Your task to perform on an android device: Add razer blade to the cart on amazon.com, then select checkout. Image 0: 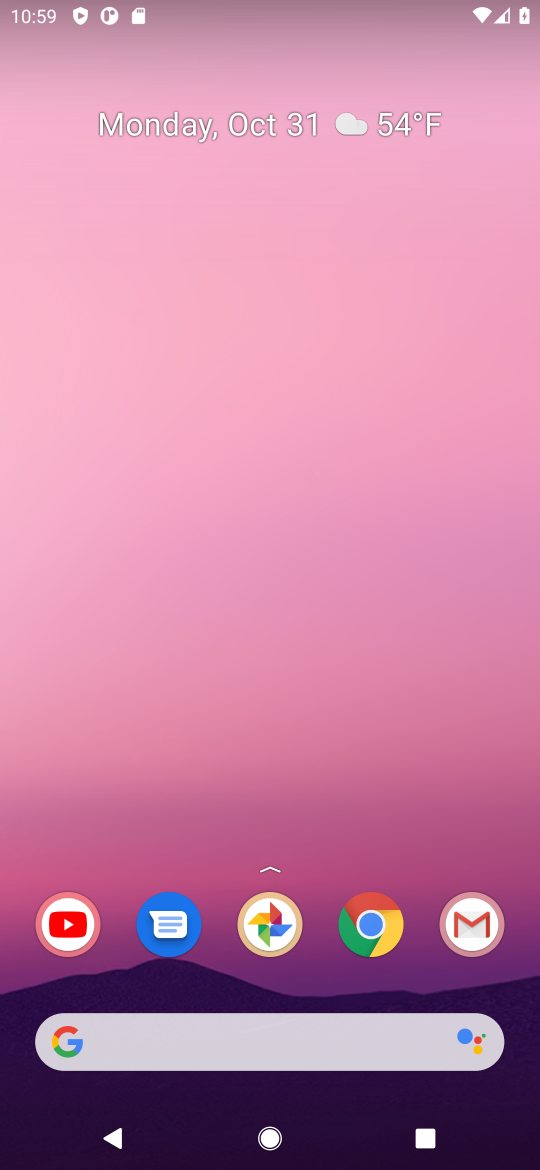
Step 0: press home button
Your task to perform on an android device: Add razer blade to the cart on amazon.com, then select checkout. Image 1: 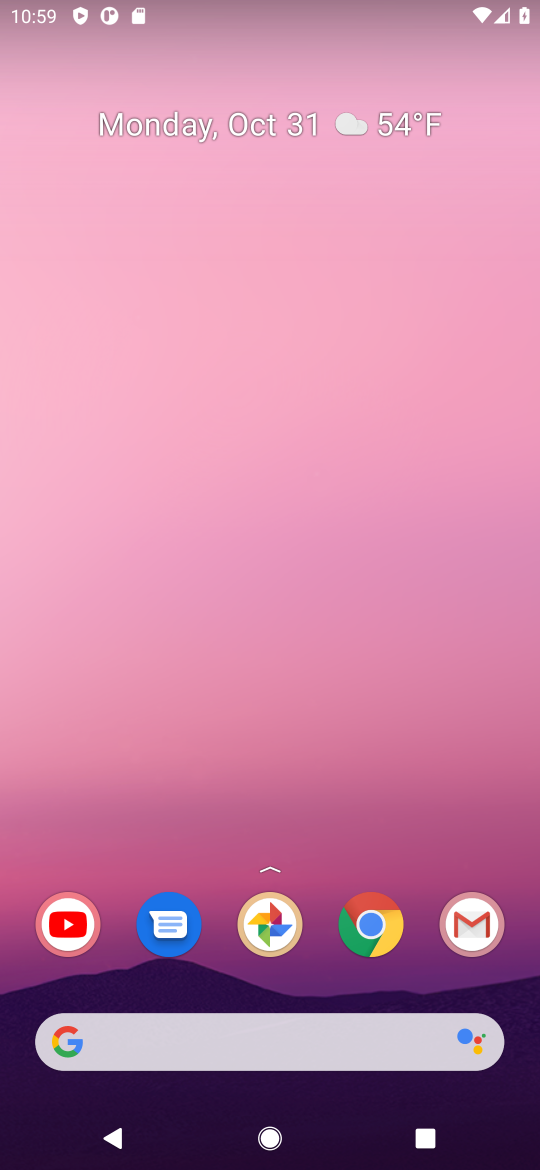
Step 1: click (360, 924)
Your task to perform on an android device: Add razer blade to the cart on amazon.com, then select checkout. Image 2: 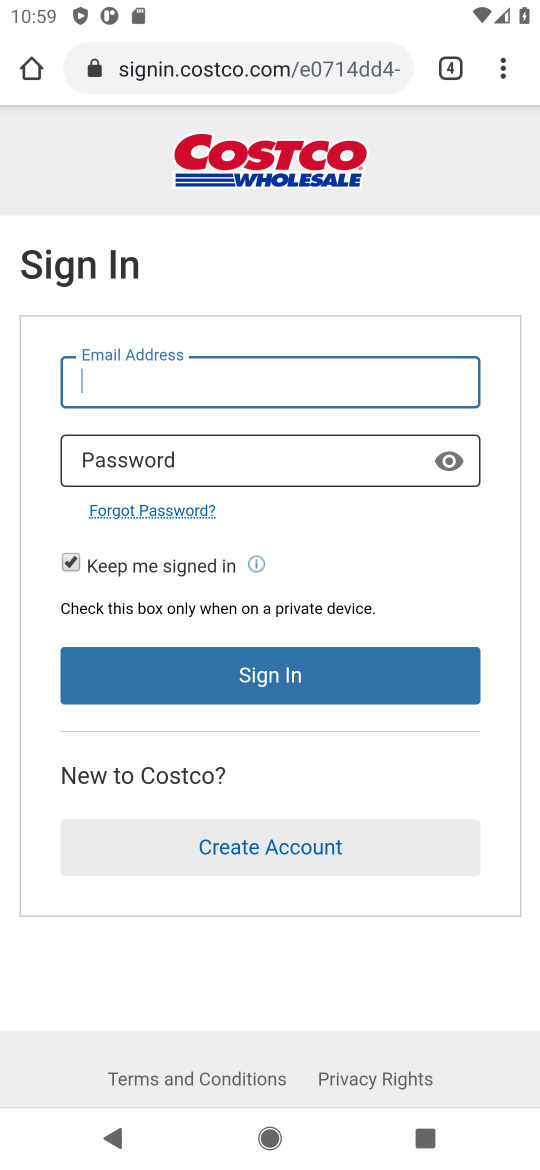
Step 2: click (240, 70)
Your task to perform on an android device: Add razer blade to the cart on amazon.com, then select checkout. Image 3: 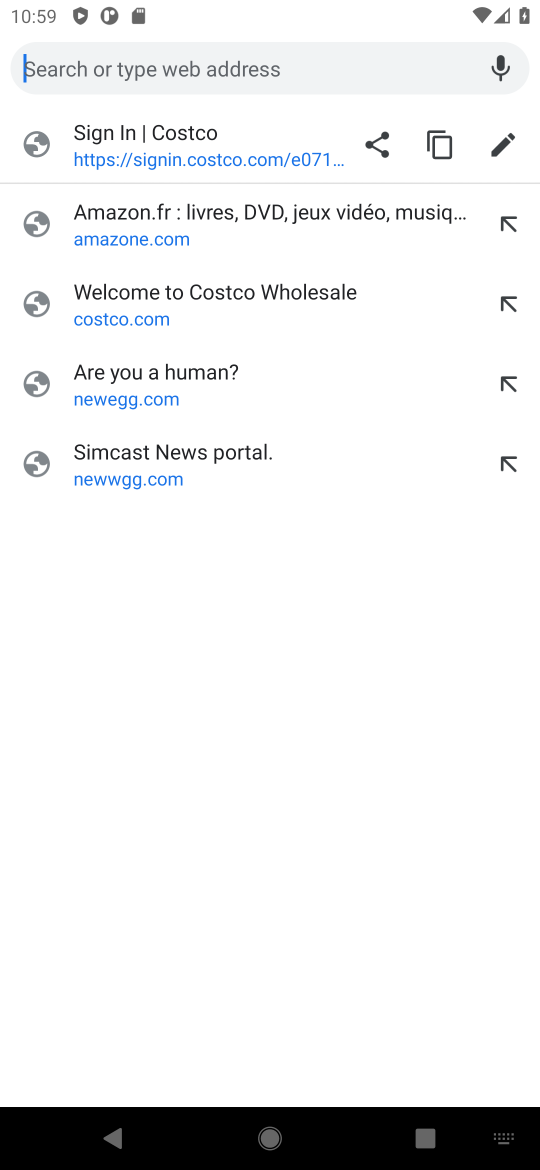
Step 3: type "amazone.com"
Your task to perform on an android device: Add razer blade to the cart on amazon.com, then select checkout. Image 4: 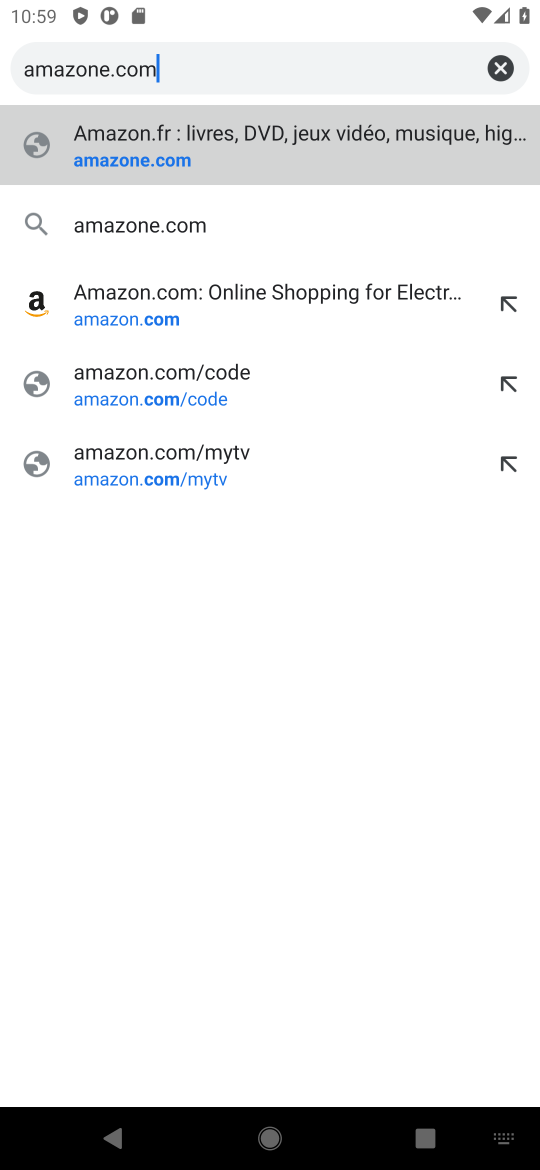
Step 4: click (163, 310)
Your task to perform on an android device: Add razer blade to the cart on amazon.com, then select checkout. Image 5: 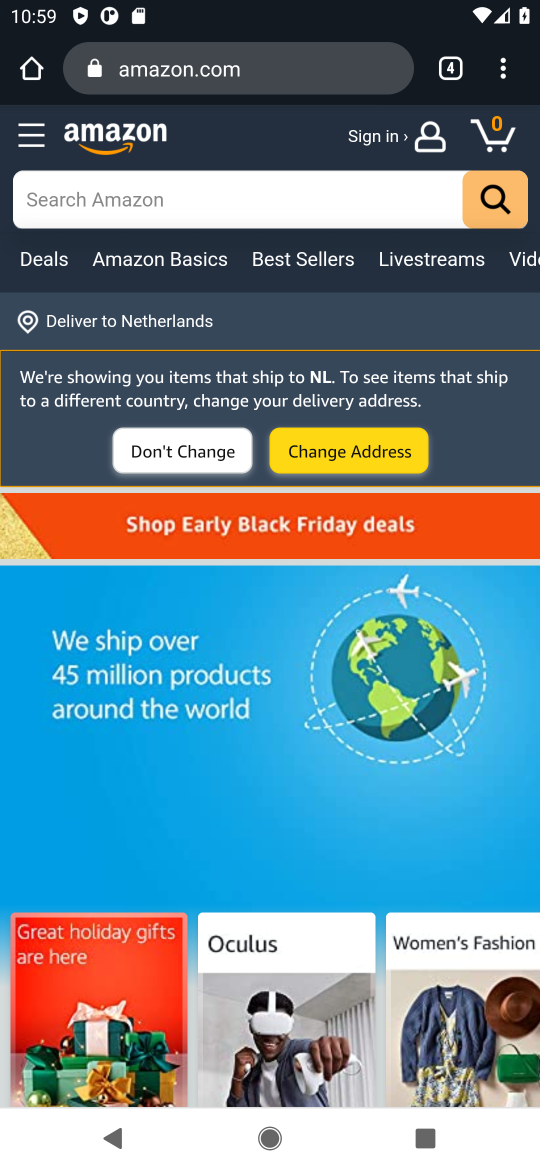
Step 5: click (198, 209)
Your task to perform on an android device: Add razer blade to the cart on amazon.com, then select checkout. Image 6: 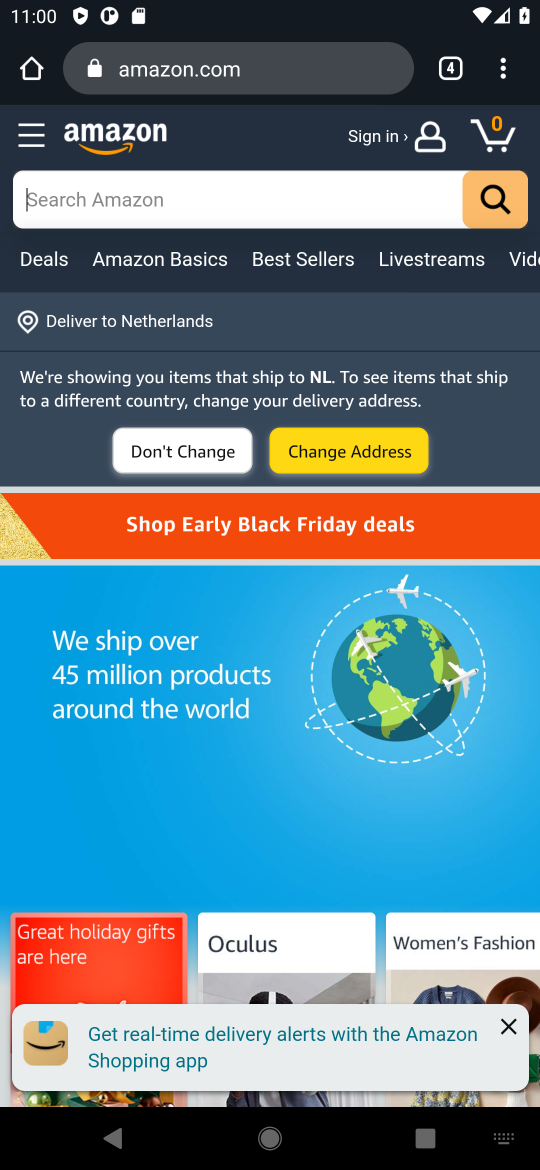
Step 6: type "razer blade"
Your task to perform on an android device: Add razer blade to the cart on amazon.com, then select checkout. Image 7: 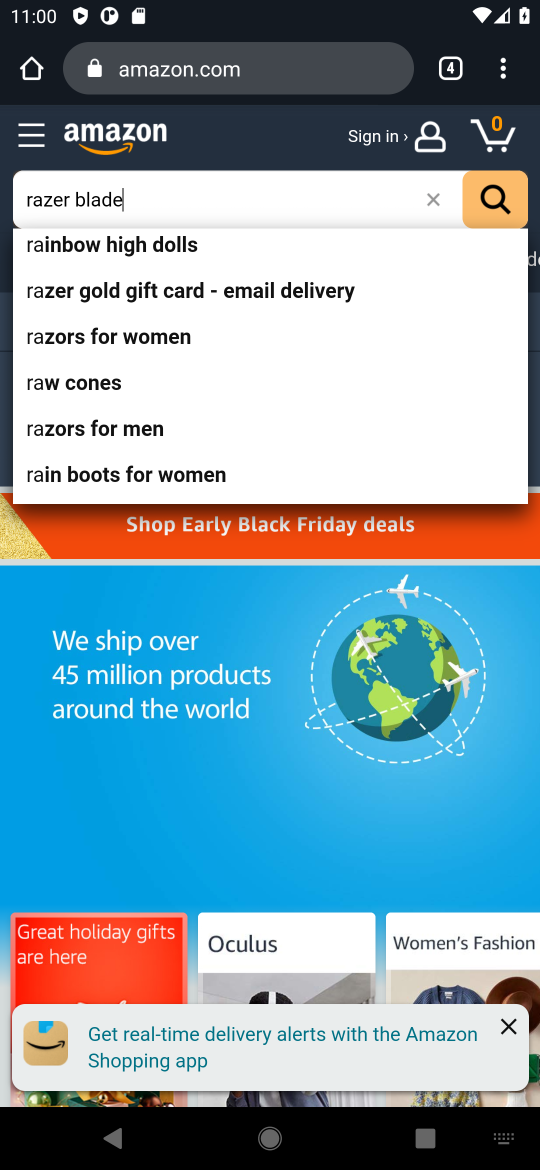
Step 7: type ""
Your task to perform on an android device: Add razer blade to the cart on amazon.com, then select checkout. Image 8: 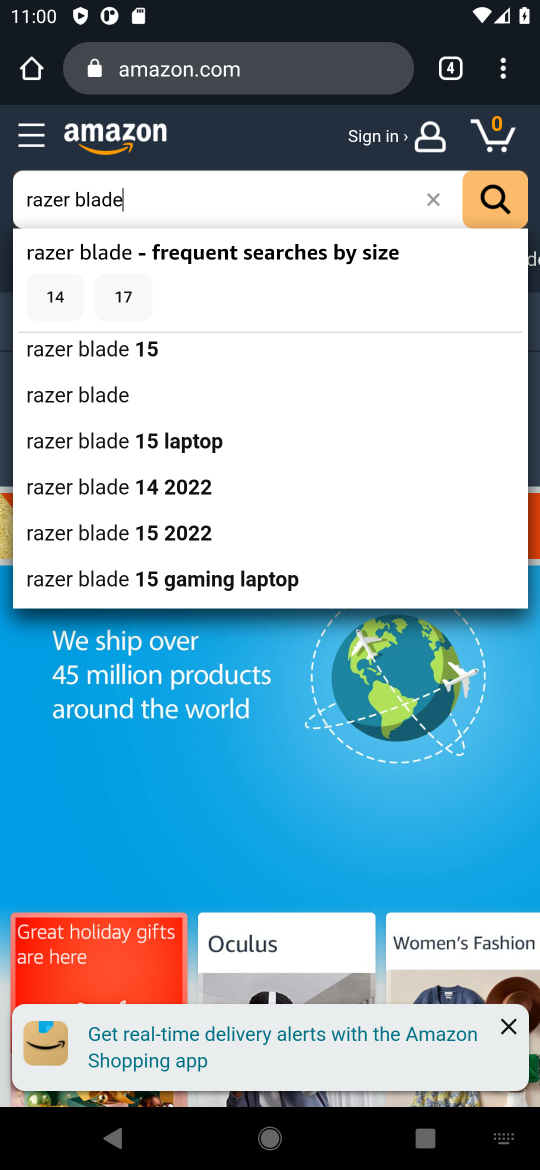
Step 8: click (277, 256)
Your task to perform on an android device: Add razer blade to the cart on amazon.com, then select checkout. Image 9: 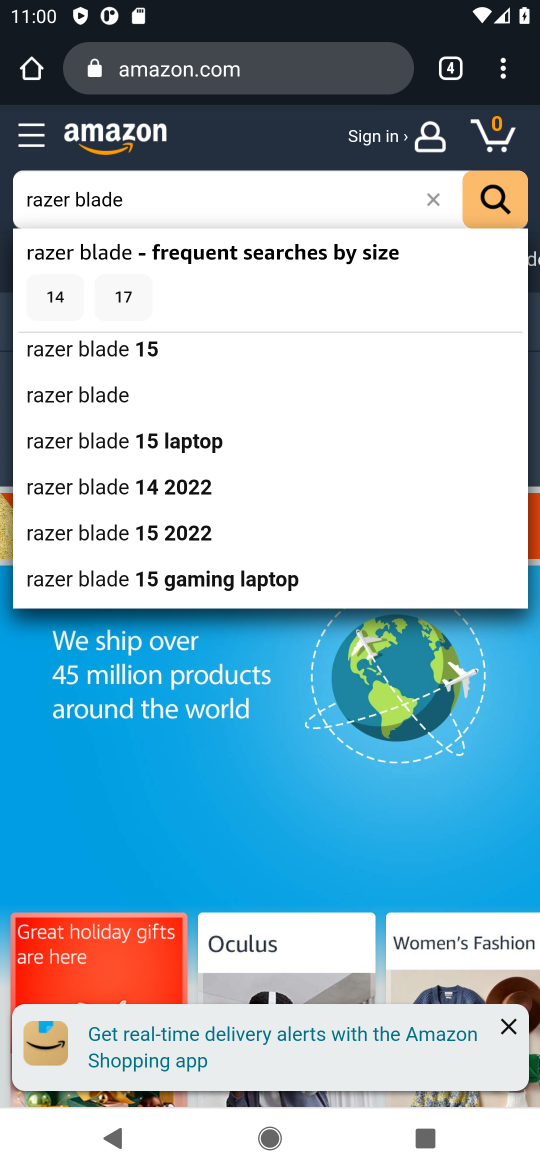
Step 9: click (301, 248)
Your task to perform on an android device: Add razer blade to the cart on amazon.com, then select checkout. Image 10: 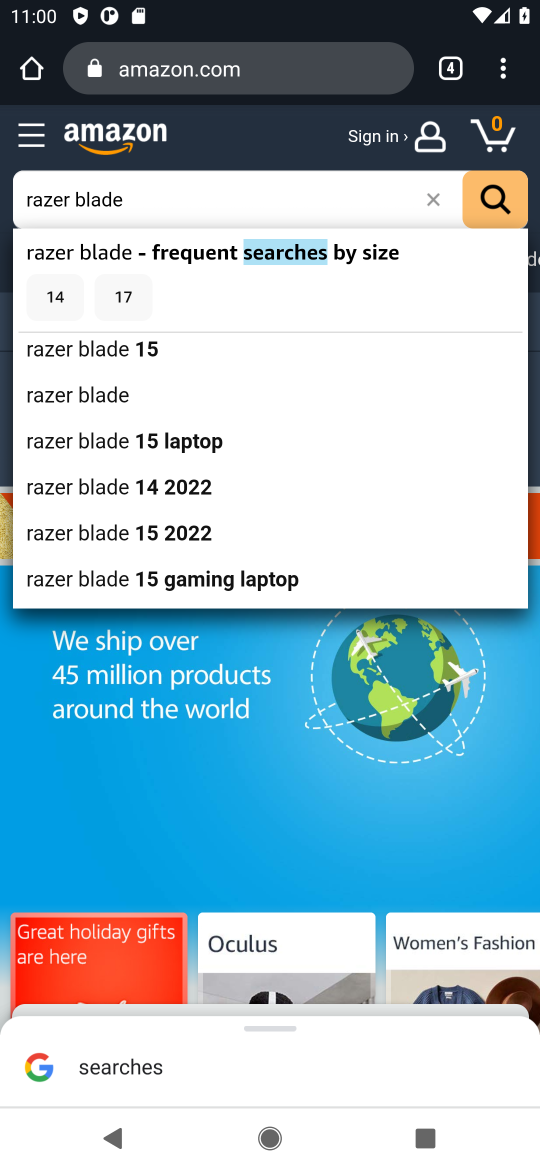
Step 10: click (114, 352)
Your task to perform on an android device: Add razer blade to the cart on amazon.com, then select checkout. Image 11: 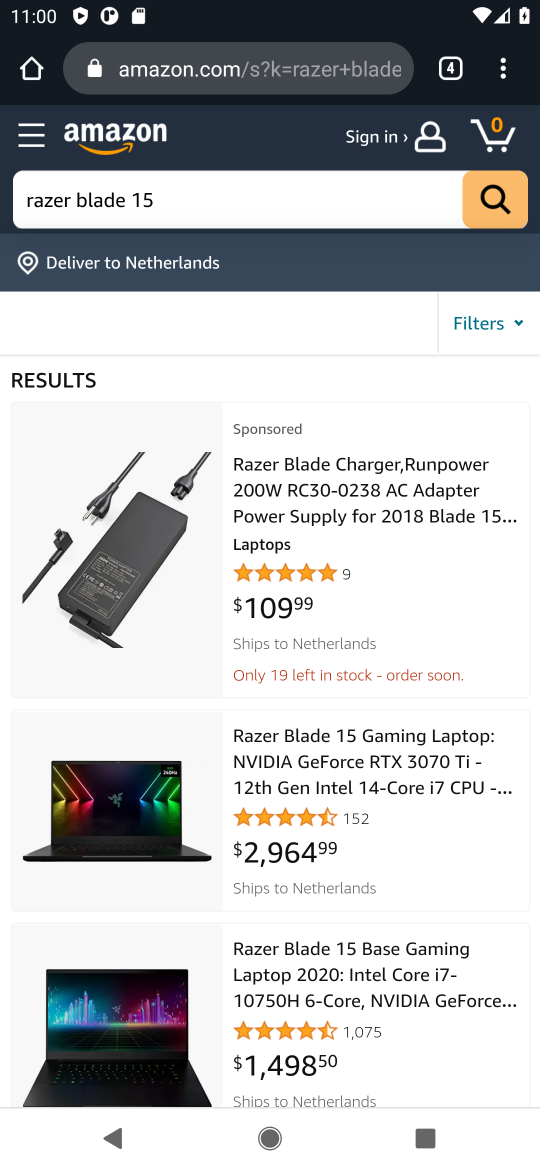
Step 11: drag from (294, 867) to (307, 970)
Your task to perform on an android device: Add razer blade to the cart on amazon.com, then select checkout. Image 12: 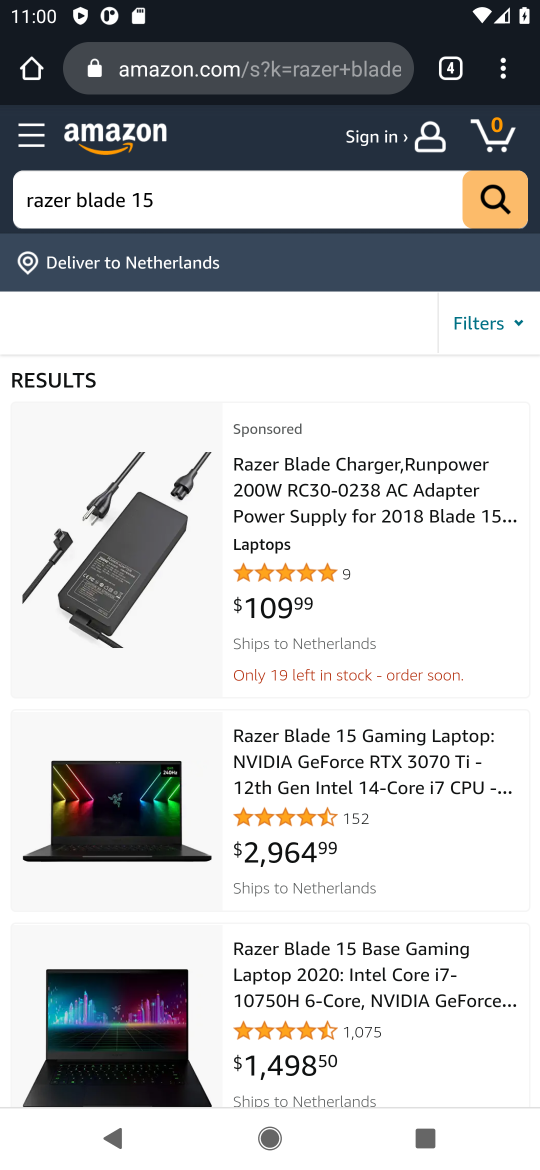
Step 12: click (147, 528)
Your task to perform on an android device: Add razer blade to the cart on amazon.com, then select checkout. Image 13: 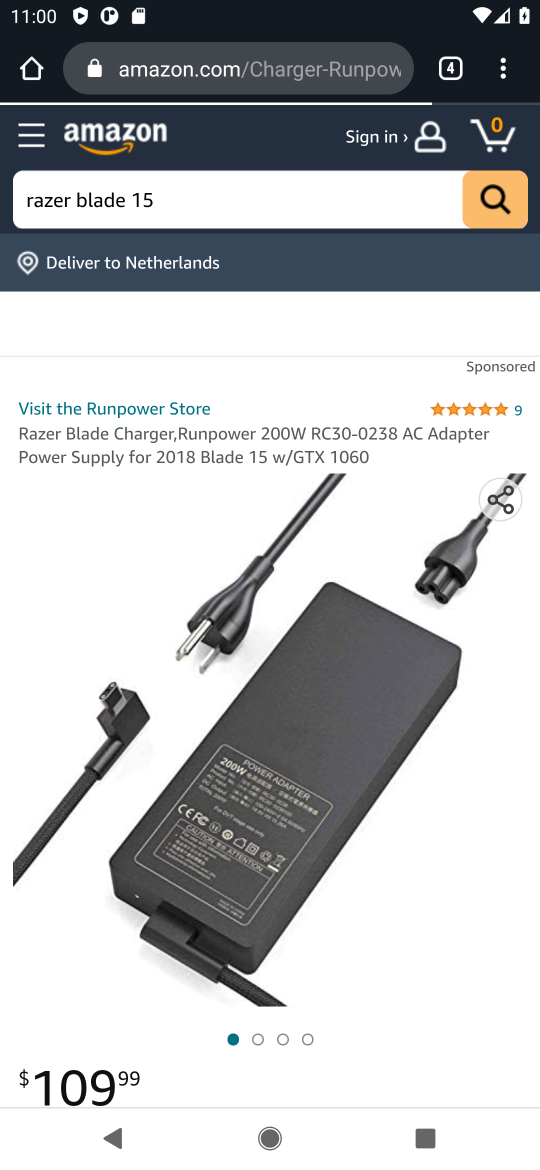
Step 13: task complete